Your task to perform on an android device: read, delete, or share a saved page in the chrome app Image 0: 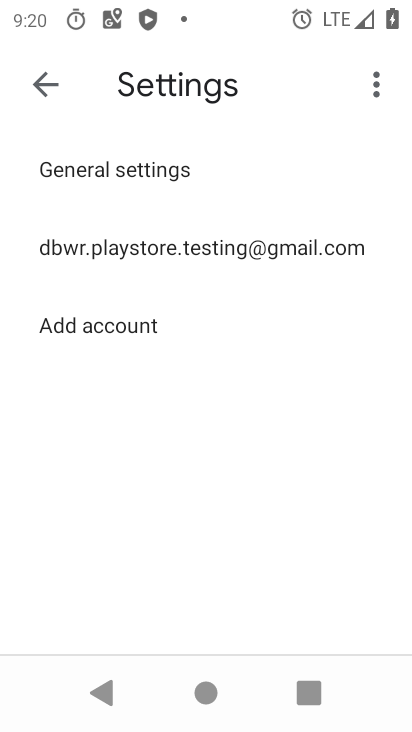
Step 0: press home button
Your task to perform on an android device: read, delete, or share a saved page in the chrome app Image 1: 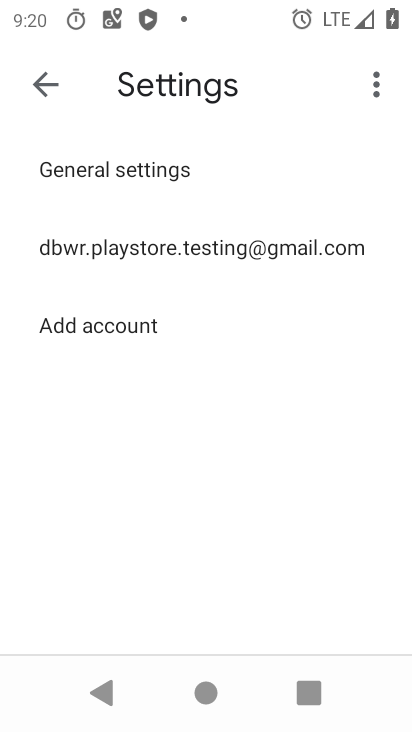
Step 1: press home button
Your task to perform on an android device: read, delete, or share a saved page in the chrome app Image 2: 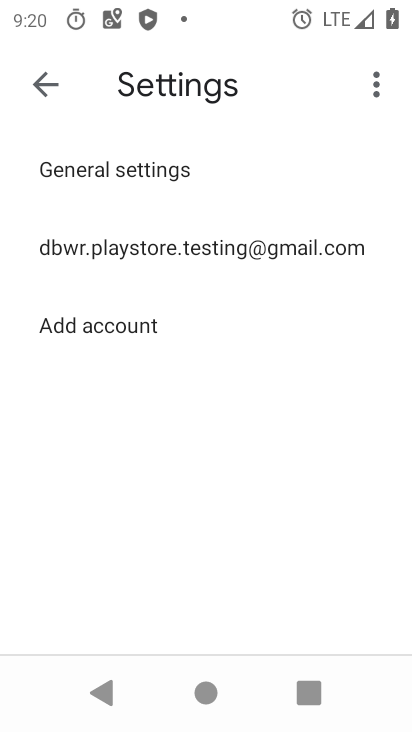
Step 2: drag from (247, 512) to (353, 11)
Your task to perform on an android device: read, delete, or share a saved page in the chrome app Image 3: 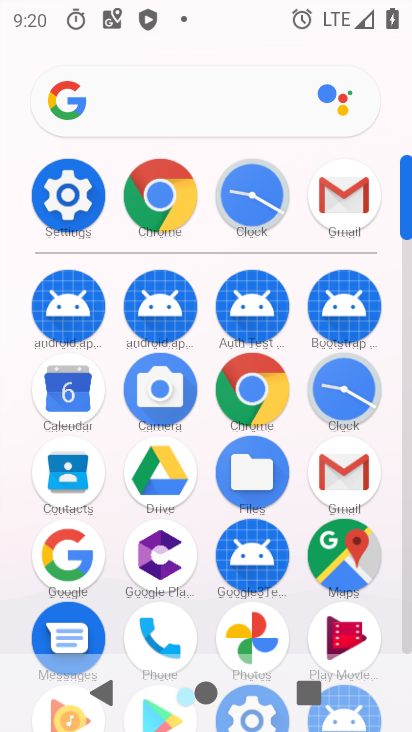
Step 3: click (251, 392)
Your task to perform on an android device: read, delete, or share a saved page in the chrome app Image 4: 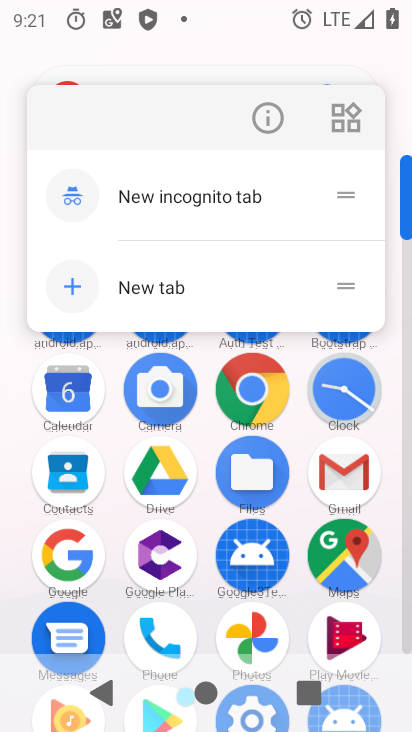
Step 4: click (263, 121)
Your task to perform on an android device: read, delete, or share a saved page in the chrome app Image 5: 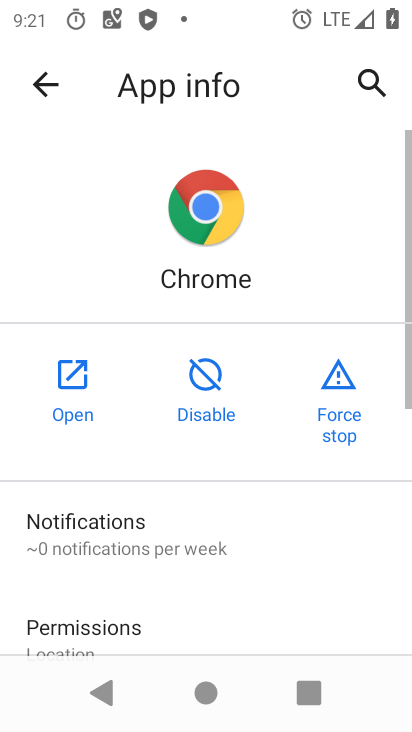
Step 5: click (75, 367)
Your task to perform on an android device: read, delete, or share a saved page in the chrome app Image 6: 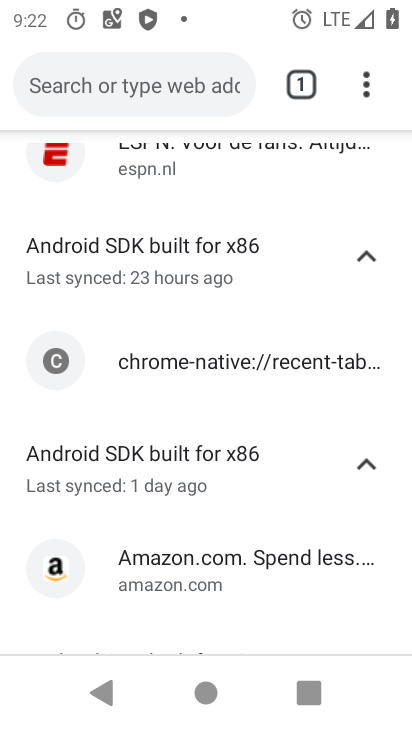
Step 6: click (369, 90)
Your task to perform on an android device: read, delete, or share a saved page in the chrome app Image 7: 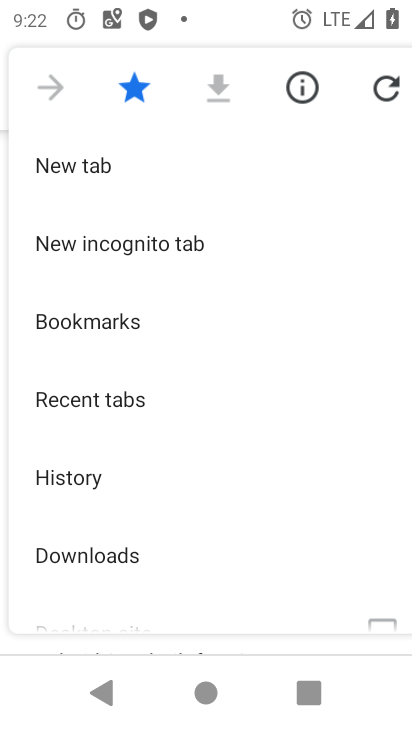
Step 7: drag from (196, 512) to (278, 139)
Your task to perform on an android device: read, delete, or share a saved page in the chrome app Image 8: 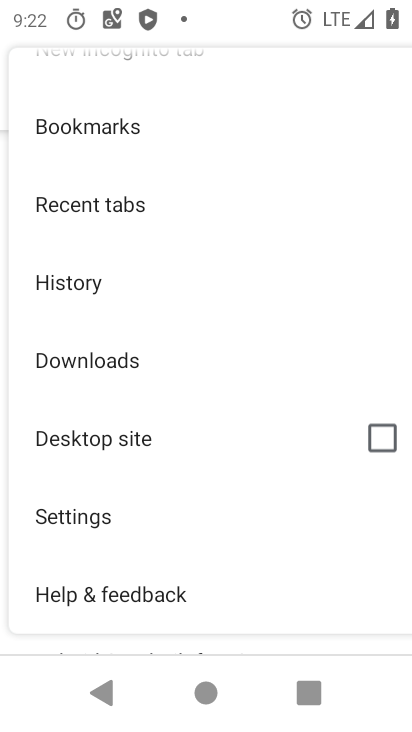
Step 8: click (117, 140)
Your task to perform on an android device: read, delete, or share a saved page in the chrome app Image 9: 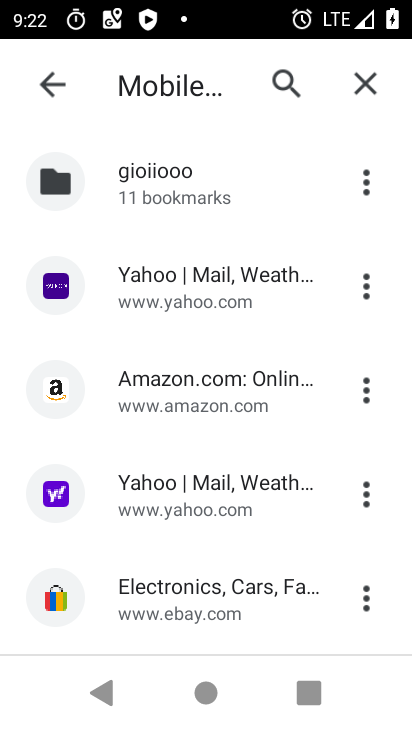
Step 9: click (362, 182)
Your task to perform on an android device: read, delete, or share a saved page in the chrome app Image 10: 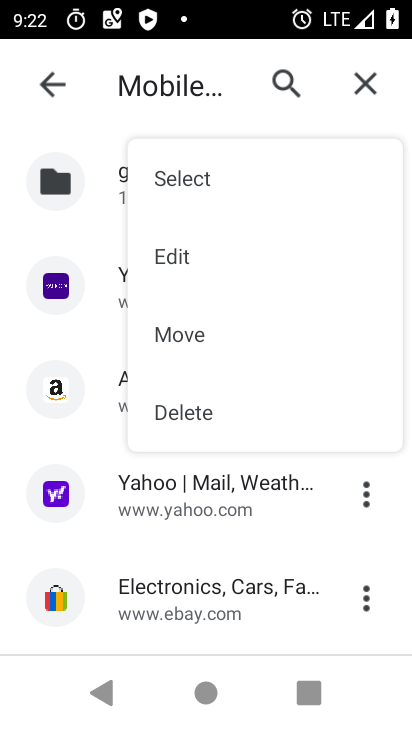
Step 10: click (213, 417)
Your task to perform on an android device: read, delete, or share a saved page in the chrome app Image 11: 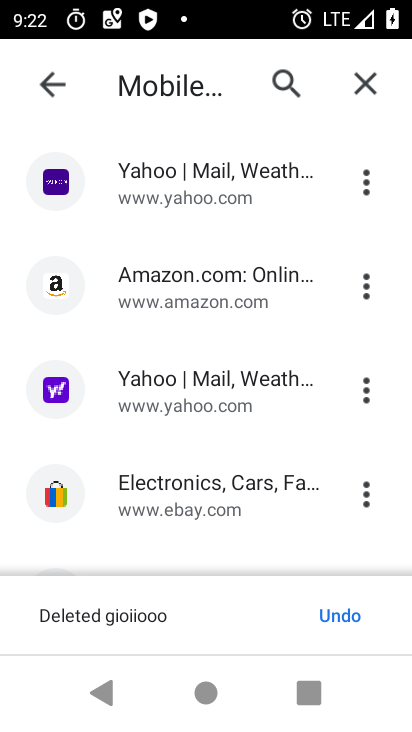
Step 11: task complete